Your task to perform on an android device: Open Google Chrome and click the shortcut for Amazon.com Image 0: 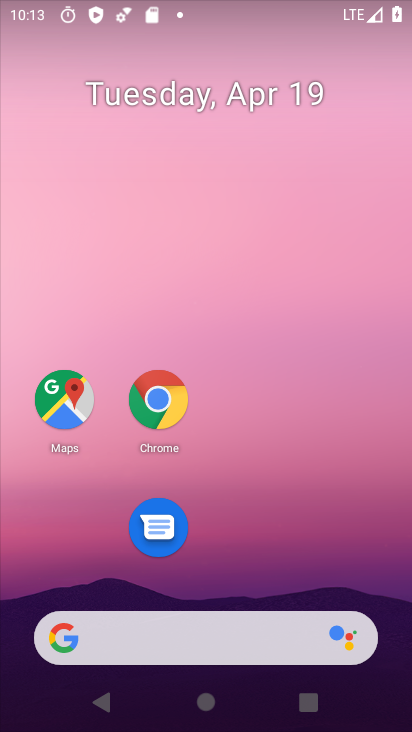
Step 0: drag from (270, 665) to (258, 203)
Your task to perform on an android device: Open Google Chrome and click the shortcut for Amazon.com Image 1: 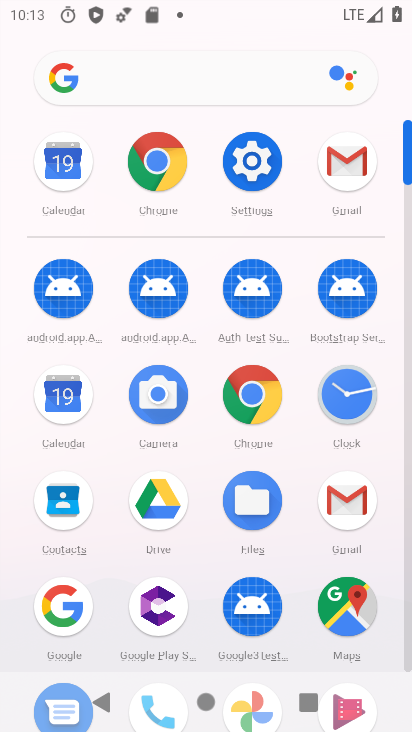
Step 1: click (158, 185)
Your task to perform on an android device: Open Google Chrome and click the shortcut for Amazon.com Image 2: 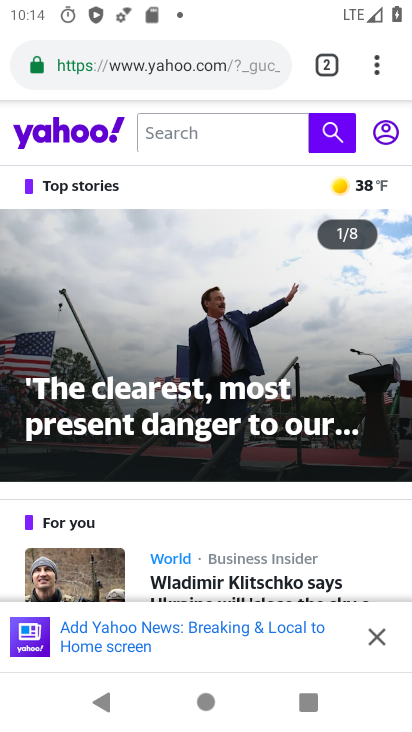
Step 2: click (171, 70)
Your task to perform on an android device: Open Google Chrome and click the shortcut for Amazon.com Image 3: 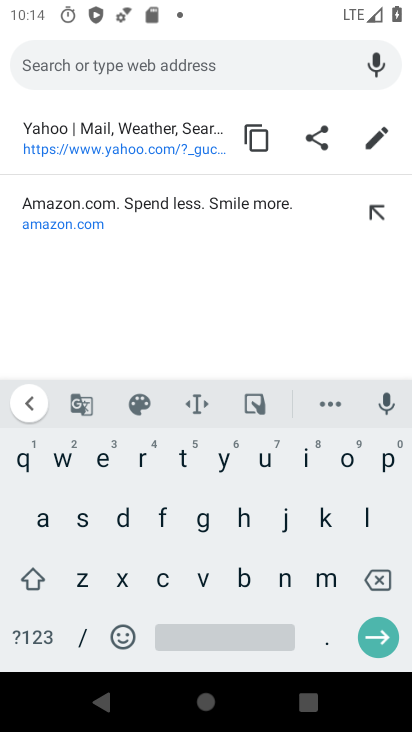
Step 3: click (88, 210)
Your task to perform on an android device: Open Google Chrome and click the shortcut for Amazon.com Image 4: 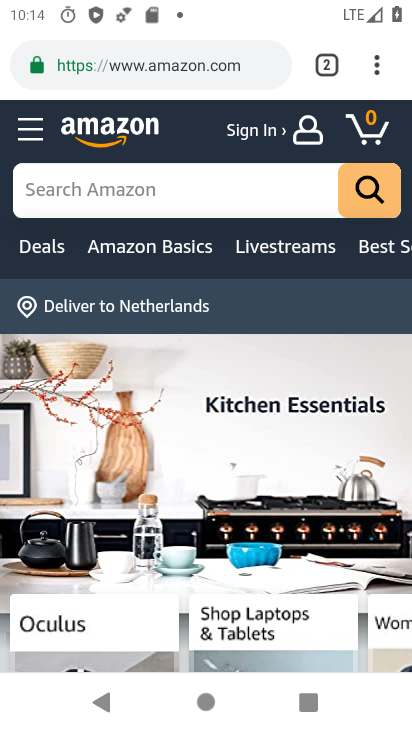
Step 4: click (377, 64)
Your task to perform on an android device: Open Google Chrome and click the shortcut for Amazon.com Image 5: 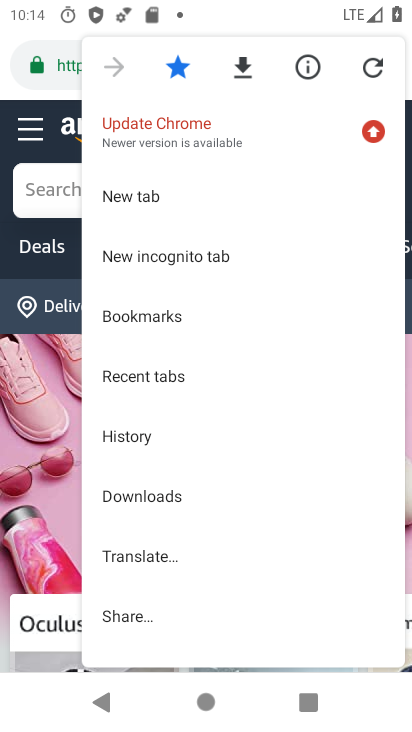
Step 5: drag from (166, 472) to (263, 222)
Your task to perform on an android device: Open Google Chrome and click the shortcut for Amazon.com Image 6: 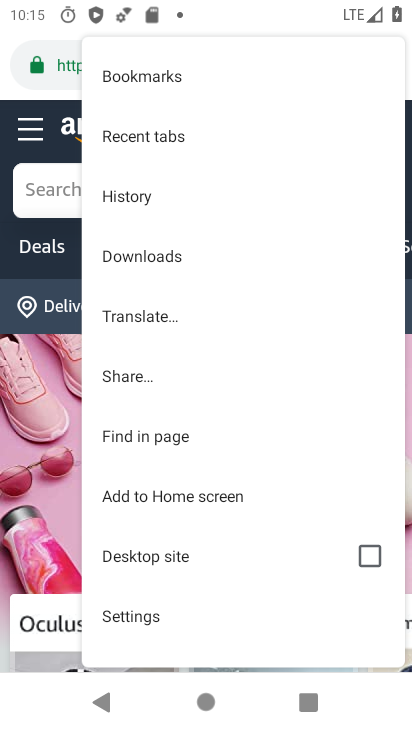
Step 6: drag from (169, 443) to (185, 381)
Your task to perform on an android device: Open Google Chrome and click the shortcut for Amazon.com Image 7: 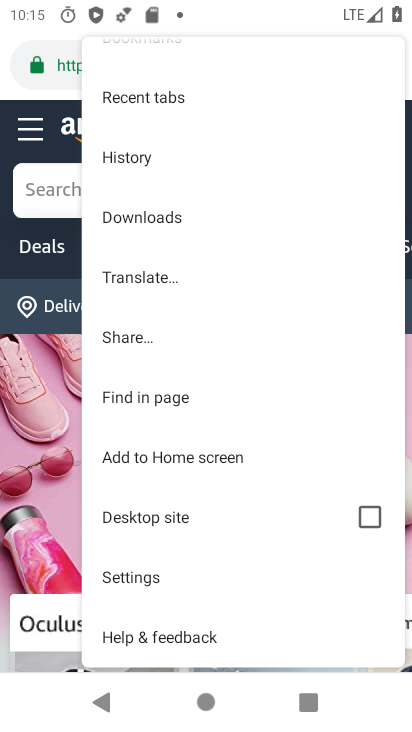
Step 7: click (169, 453)
Your task to perform on an android device: Open Google Chrome and click the shortcut for Amazon.com Image 8: 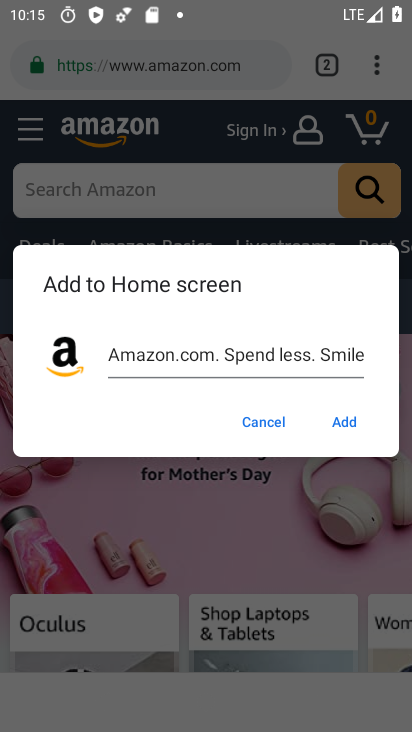
Step 8: click (346, 412)
Your task to perform on an android device: Open Google Chrome and click the shortcut for Amazon.com Image 9: 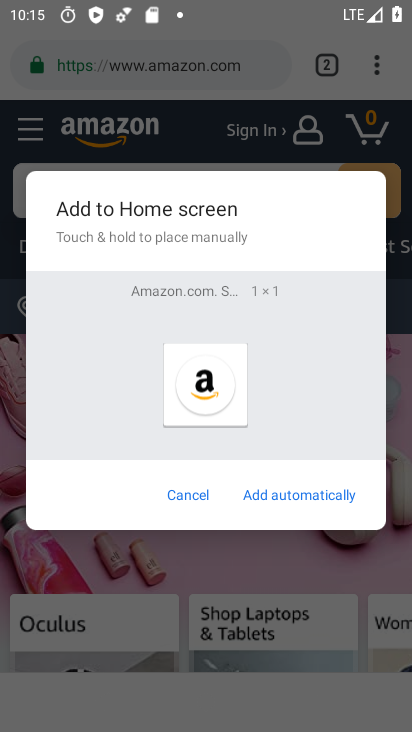
Step 9: click (297, 489)
Your task to perform on an android device: Open Google Chrome and click the shortcut for Amazon.com Image 10: 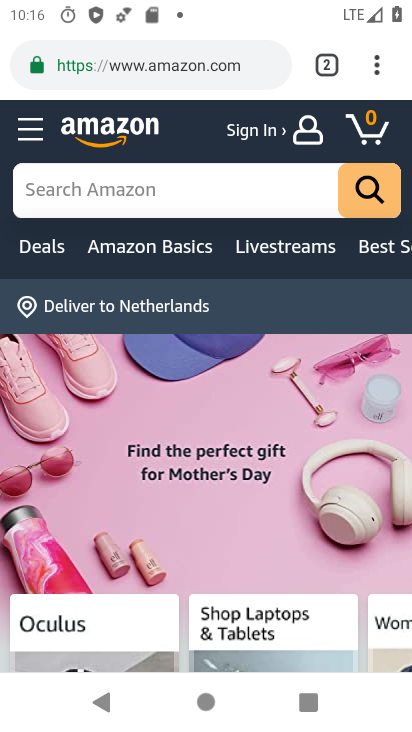
Step 10: task complete